Your task to perform on an android device: What is the capital of Switzerland? Image 0: 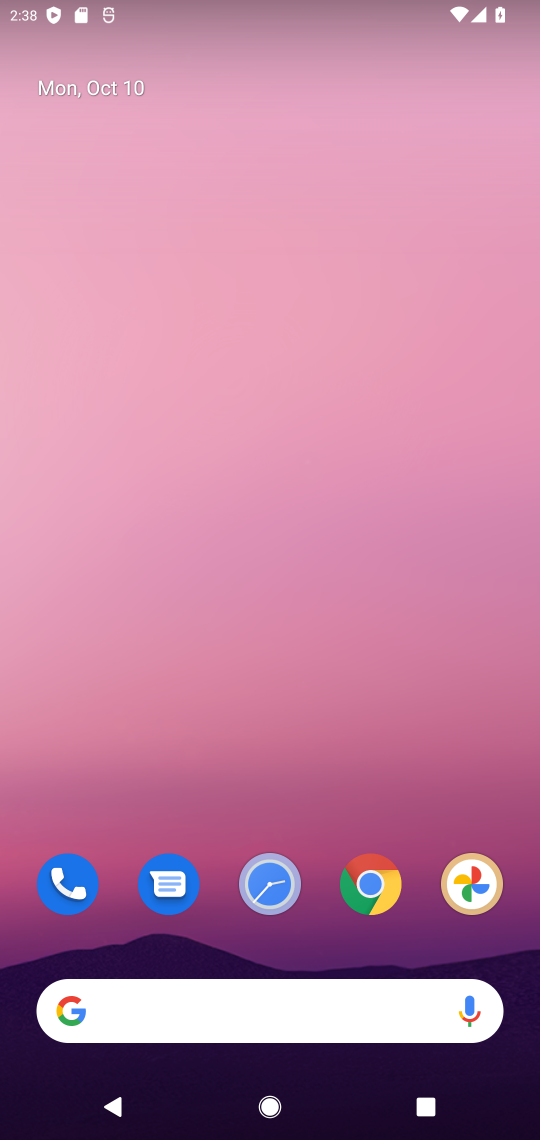
Step 0: click (365, 997)
Your task to perform on an android device: What is the capital of Switzerland? Image 1: 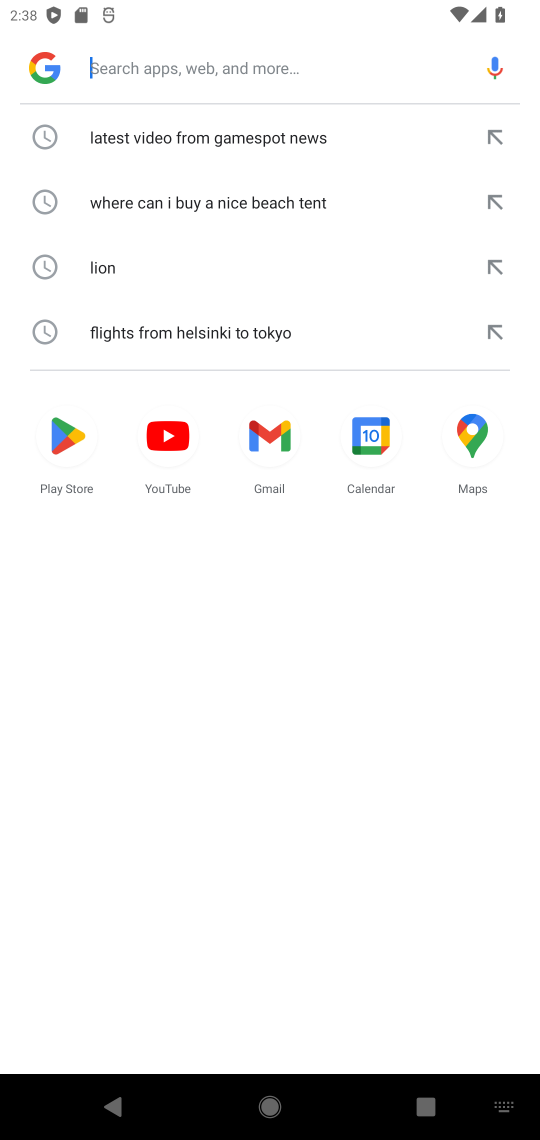
Step 1: type "What is the capital of Switzerland?"
Your task to perform on an android device: What is the capital of Switzerland? Image 2: 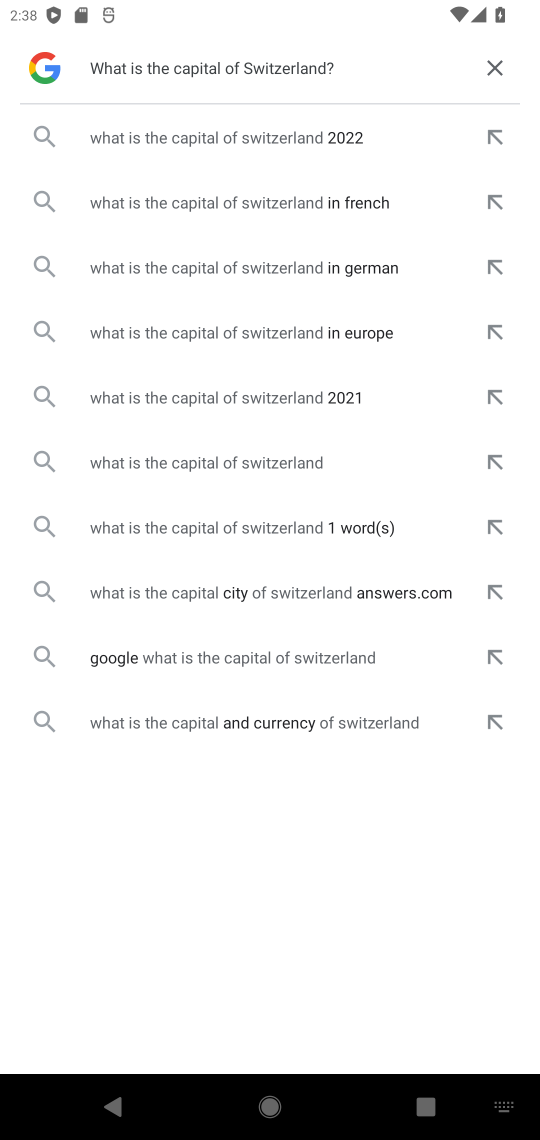
Step 2: click (302, 135)
Your task to perform on an android device: What is the capital of Switzerland? Image 3: 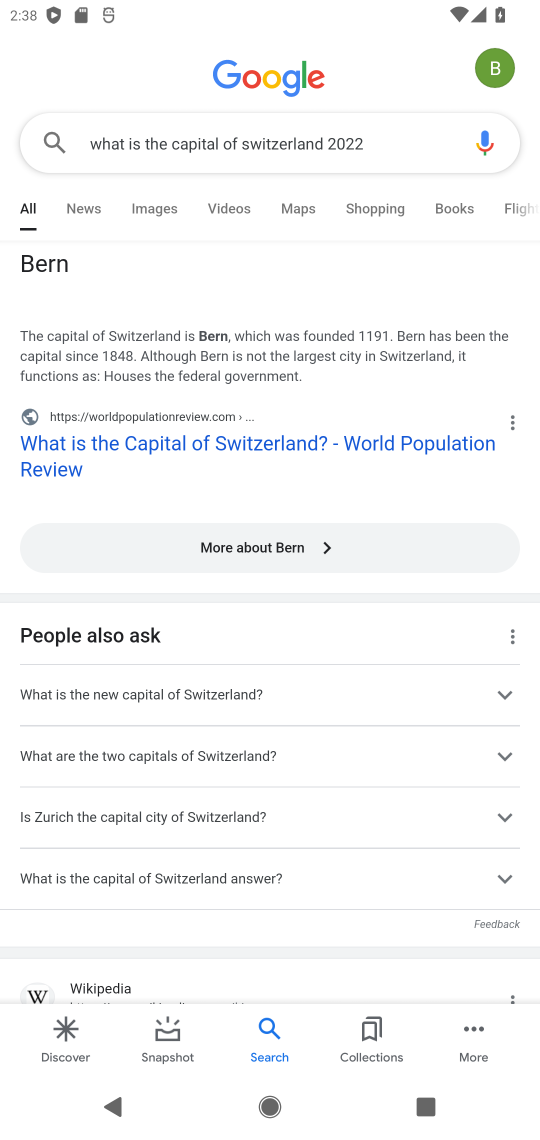
Step 3: task complete